Your task to perform on an android device: Go to Android settings Image 0: 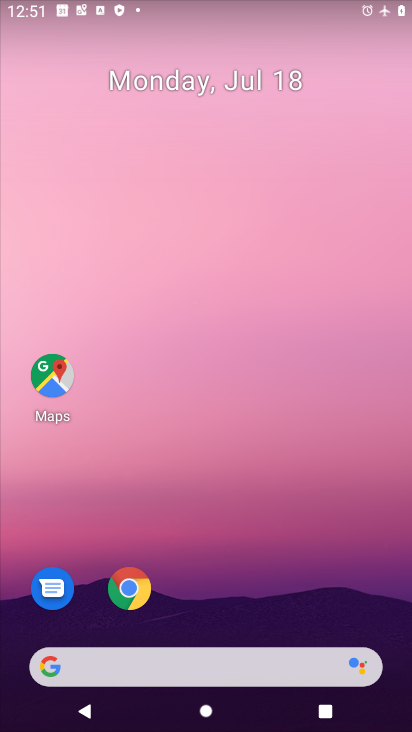
Step 0: drag from (178, 640) to (195, 96)
Your task to perform on an android device: Go to Android settings Image 1: 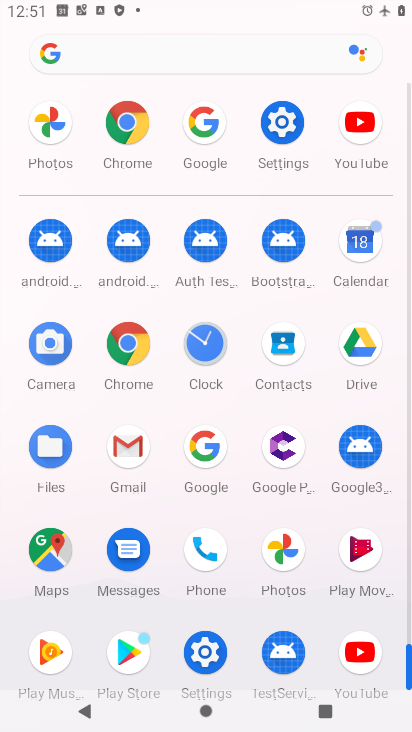
Step 1: click (311, 142)
Your task to perform on an android device: Go to Android settings Image 2: 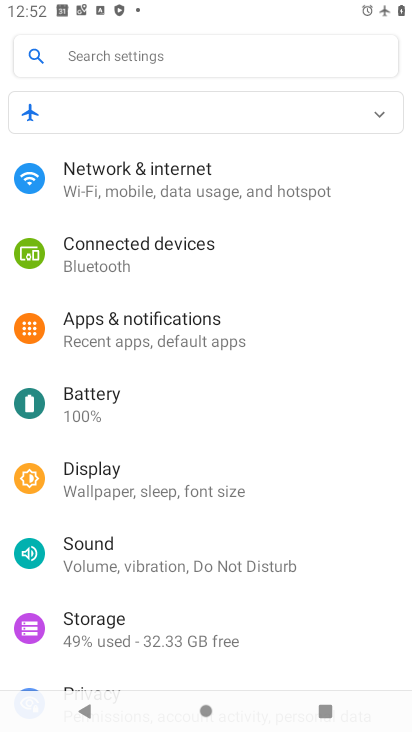
Step 2: drag from (154, 527) to (238, 75)
Your task to perform on an android device: Go to Android settings Image 3: 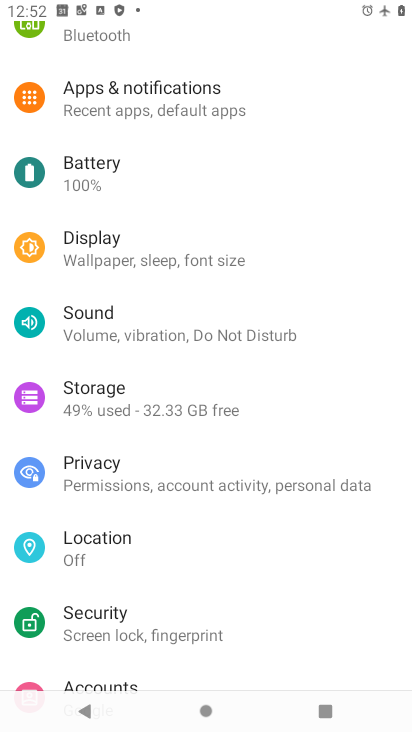
Step 3: drag from (244, 557) to (283, 61)
Your task to perform on an android device: Go to Android settings Image 4: 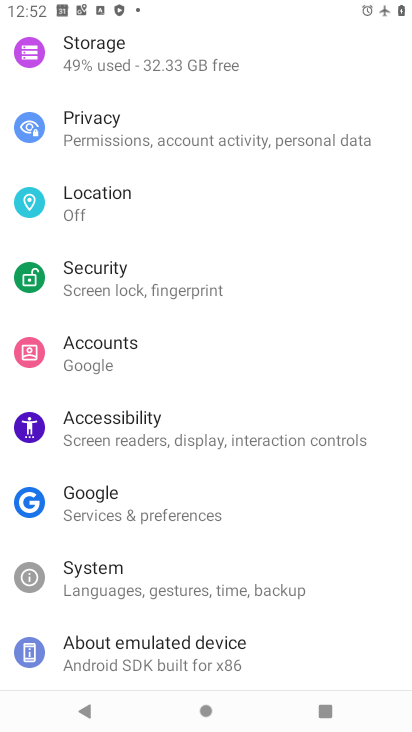
Step 4: click (219, 666)
Your task to perform on an android device: Go to Android settings Image 5: 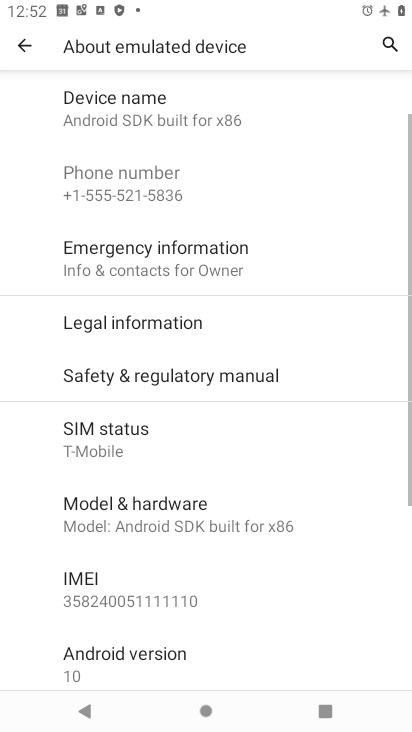
Step 5: click (162, 669)
Your task to perform on an android device: Go to Android settings Image 6: 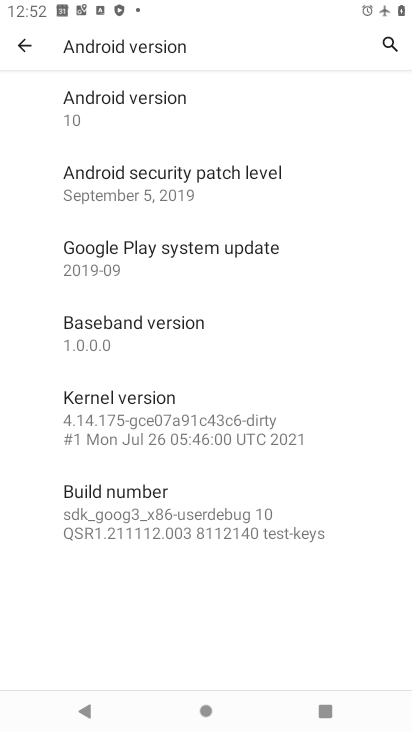
Step 6: task complete